Your task to perform on an android device: open app "DuckDuckGo Privacy Browser" (install if not already installed) and enter user name: "cleaving@outlook.com" and password: "freighters" Image 0: 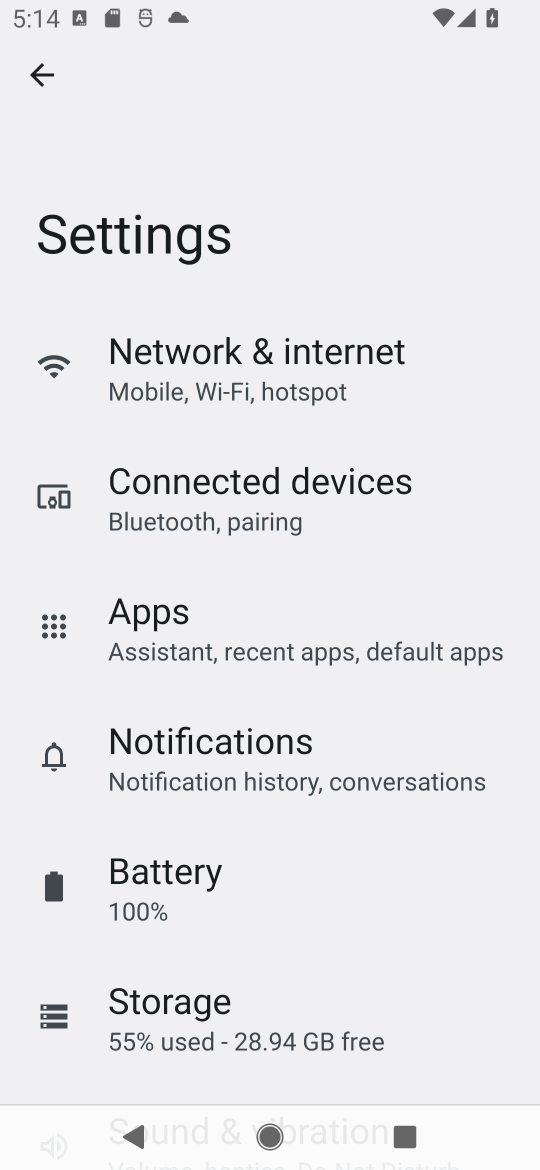
Step 0: press home button
Your task to perform on an android device: open app "DuckDuckGo Privacy Browser" (install if not already installed) and enter user name: "cleaving@outlook.com" and password: "freighters" Image 1: 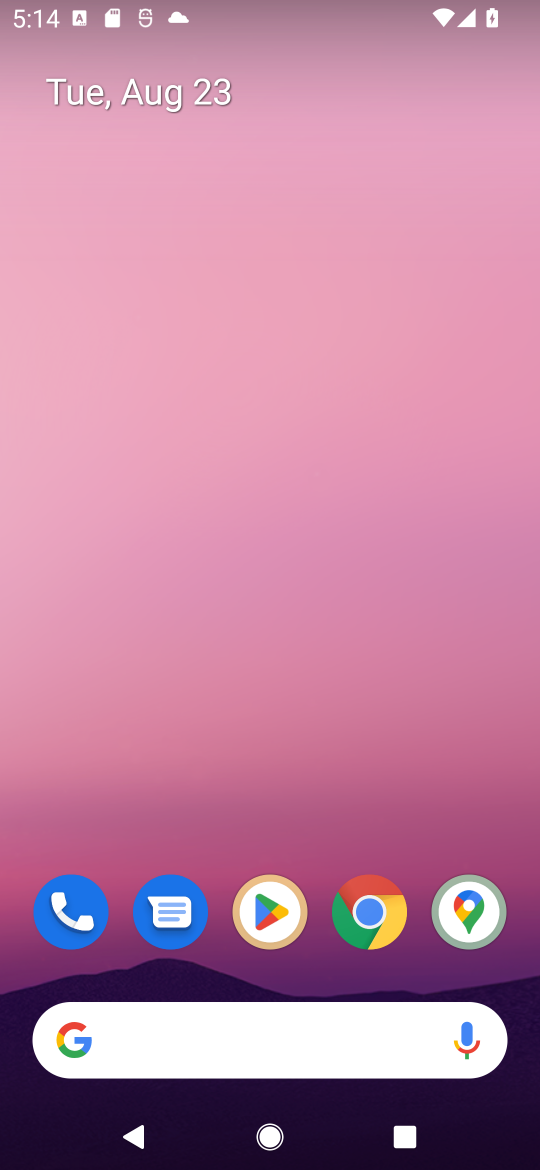
Step 1: drag from (149, 1044) to (220, 134)
Your task to perform on an android device: open app "DuckDuckGo Privacy Browser" (install if not already installed) and enter user name: "cleaving@outlook.com" and password: "freighters" Image 2: 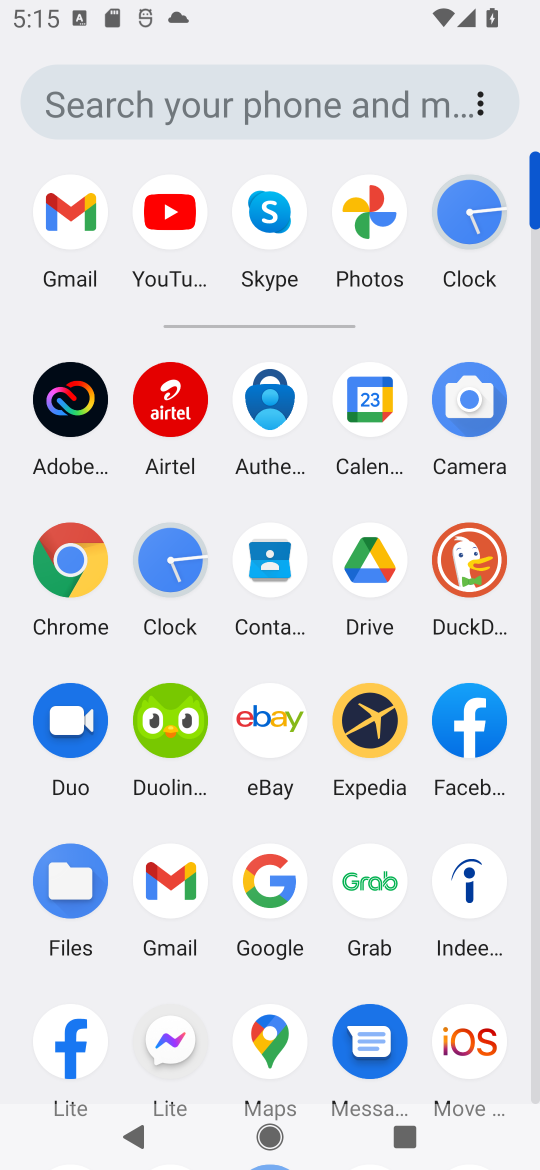
Step 2: drag from (211, 993) to (230, 517)
Your task to perform on an android device: open app "DuckDuckGo Privacy Browser" (install if not already installed) and enter user name: "cleaving@outlook.com" and password: "freighters" Image 3: 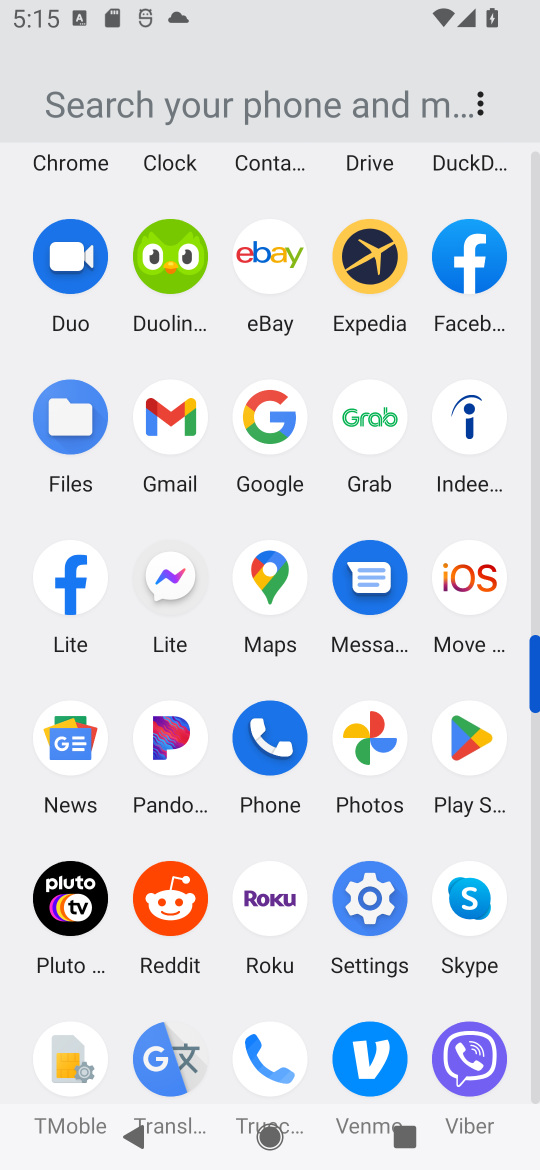
Step 3: click (475, 740)
Your task to perform on an android device: open app "DuckDuckGo Privacy Browser" (install if not already installed) and enter user name: "cleaving@outlook.com" and password: "freighters" Image 4: 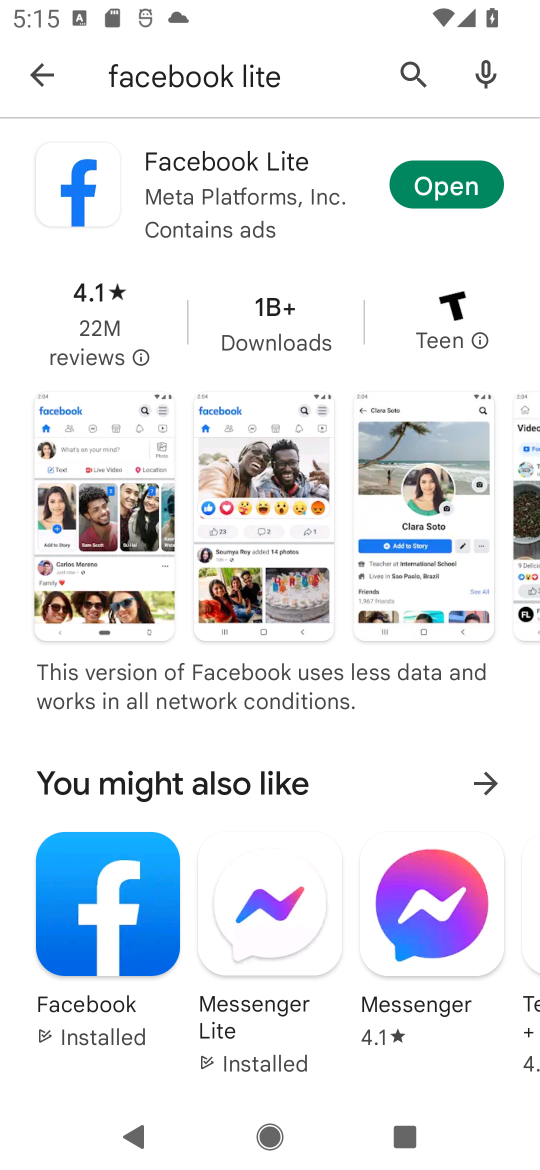
Step 4: click (364, 85)
Your task to perform on an android device: open app "DuckDuckGo Privacy Browser" (install if not already installed) and enter user name: "cleaving@outlook.com" and password: "freighters" Image 5: 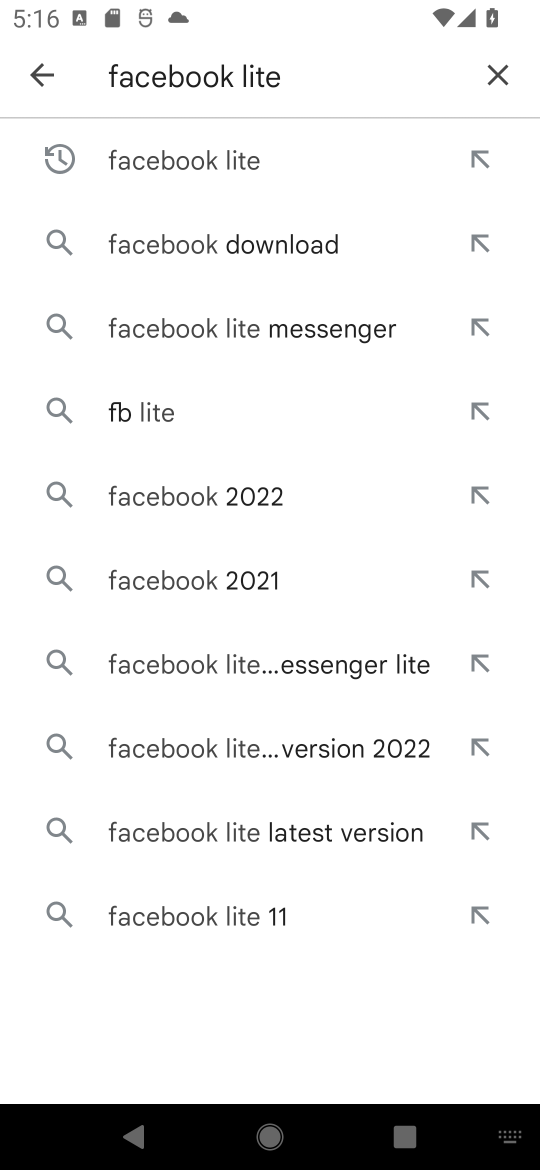
Step 5: click (508, 74)
Your task to perform on an android device: open app "DuckDuckGo Privacy Browser" (install if not already installed) and enter user name: "cleaving@outlook.com" and password: "freighters" Image 6: 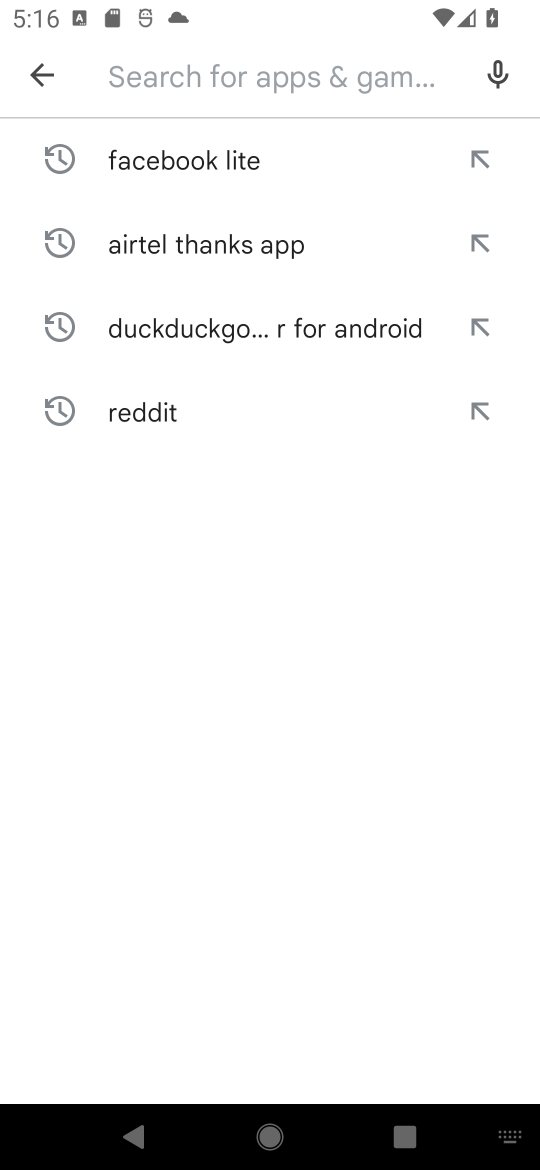
Step 6: type "DuckDuckGo Privacy Browser"
Your task to perform on an android device: open app "DuckDuckGo Privacy Browser" (install if not already installed) and enter user name: "cleaving@outlook.com" and password: "freighters" Image 7: 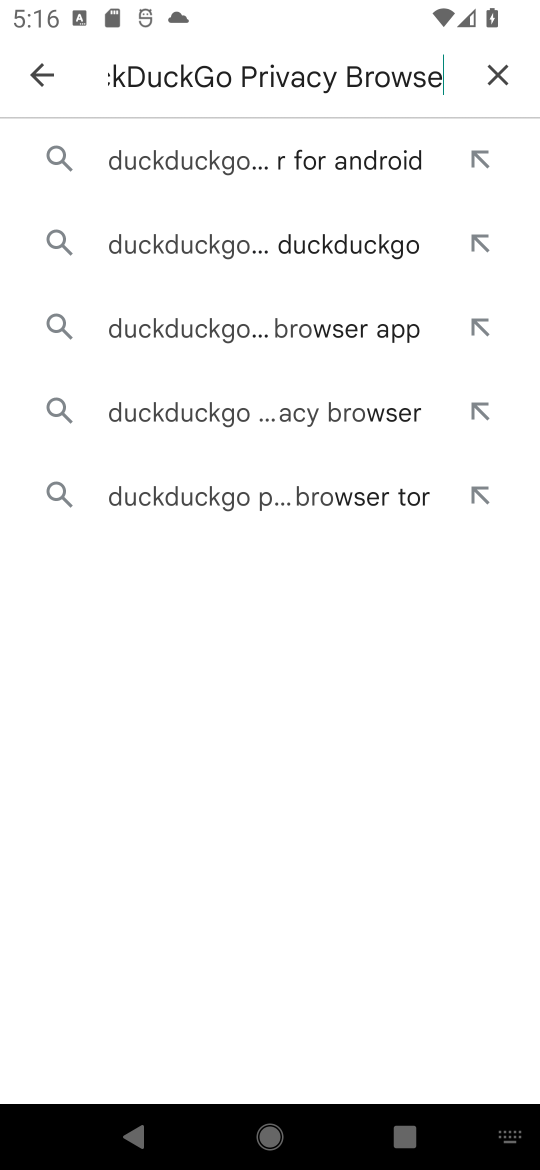
Step 7: type ""
Your task to perform on an android device: open app "DuckDuckGo Privacy Browser" (install if not already installed) and enter user name: "cleaving@outlook.com" and password: "freighters" Image 8: 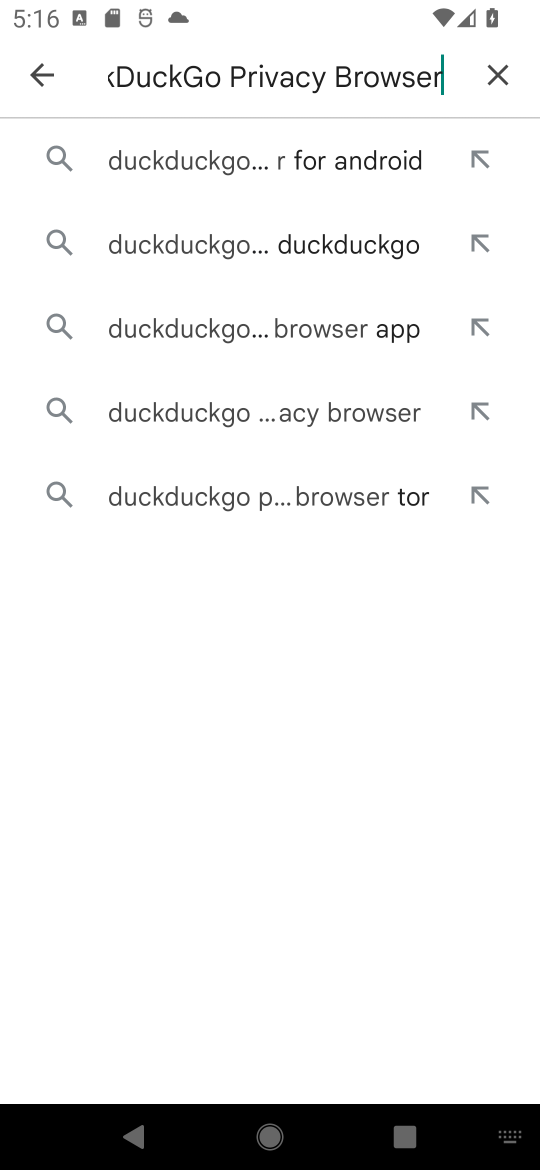
Step 8: click (157, 251)
Your task to perform on an android device: open app "DuckDuckGo Privacy Browser" (install if not already installed) and enter user name: "cleaving@outlook.com" and password: "freighters" Image 9: 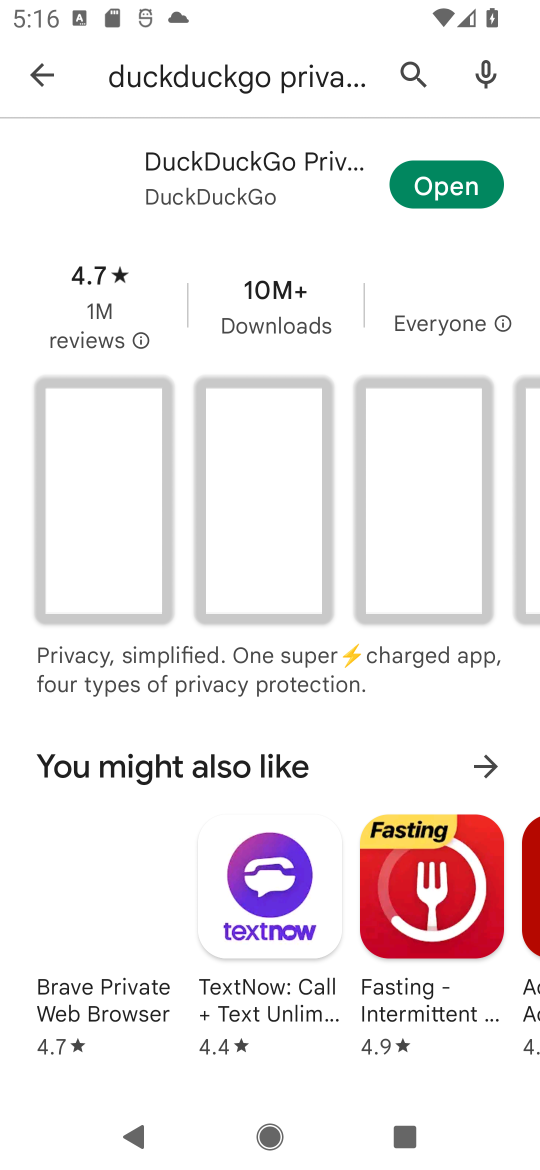
Step 9: click (438, 188)
Your task to perform on an android device: open app "DuckDuckGo Privacy Browser" (install if not already installed) and enter user name: "cleaving@outlook.com" and password: "freighters" Image 10: 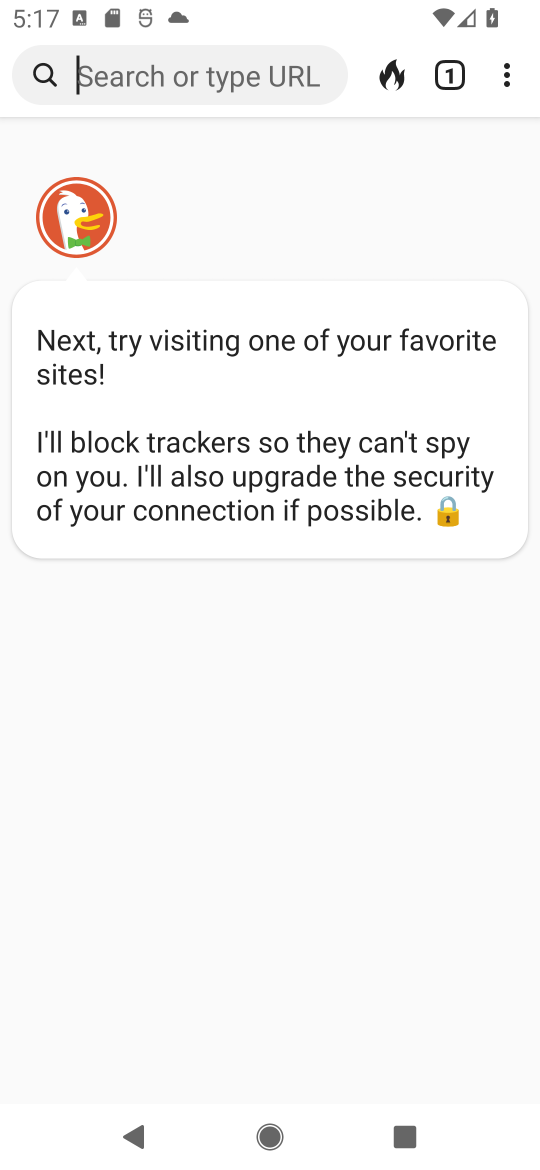
Step 10: task complete